Your task to perform on an android device: toggle priority inbox in the gmail app Image 0: 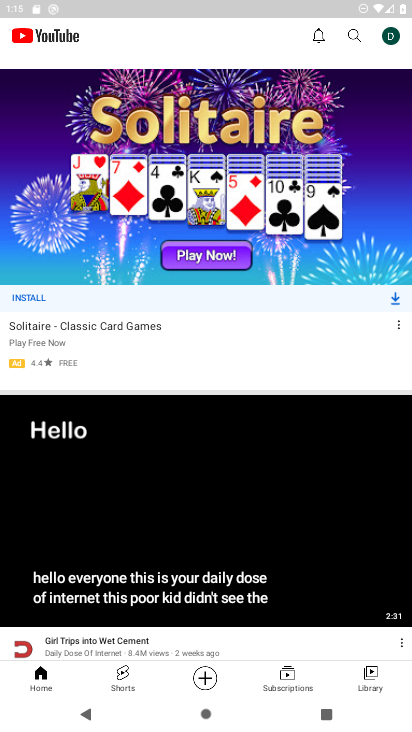
Step 0: press home button
Your task to perform on an android device: toggle priority inbox in the gmail app Image 1: 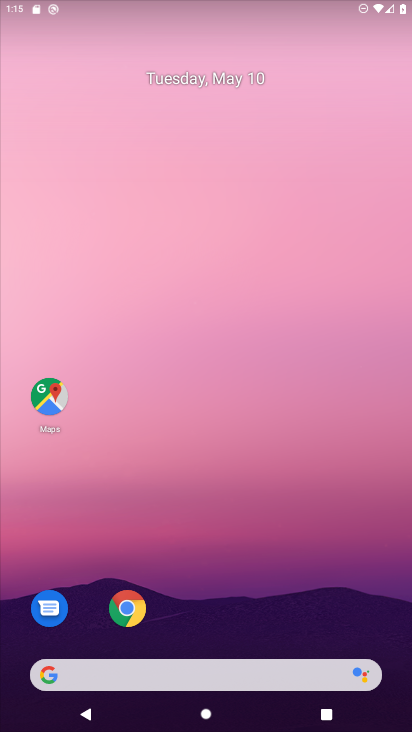
Step 1: drag from (319, 541) to (318, 263)
Your task to perform on an android device: toggle priority inbox in the gmail app Image 2: 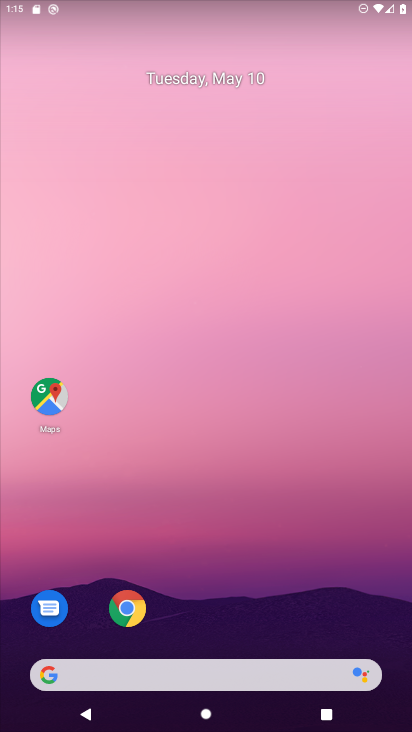
Step 2: drag from (225, 564) to (234, 272)
Your task to perform on an android device: toggle priority inbox in the gmail app Image 3: 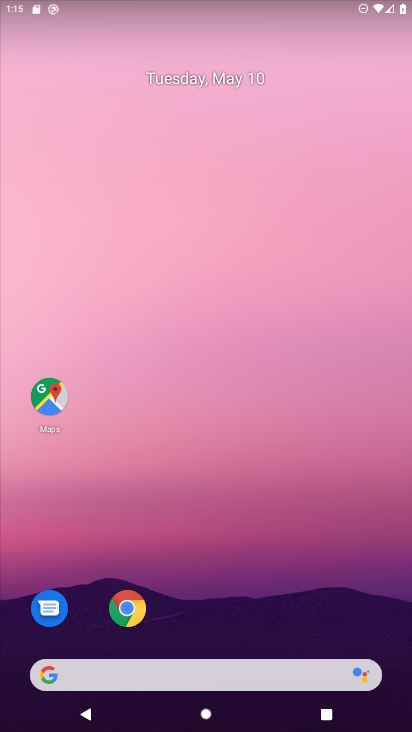
Step 3: drag from (229, 615) to (269, 193)
Your task to perform on an android device: toggle priority inbox in the gmail app Image 4: 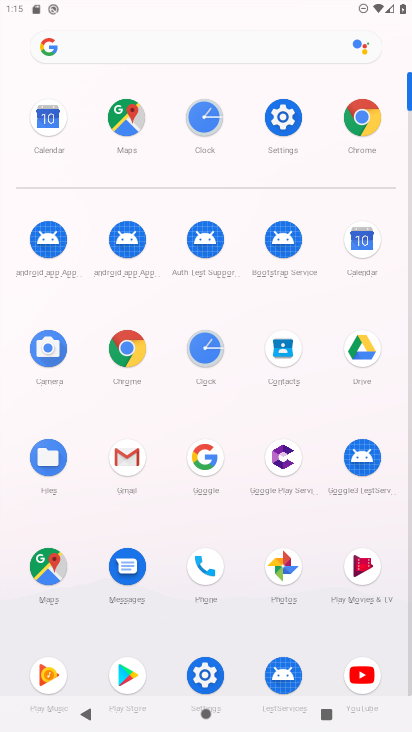
Step 4: drag from (245, 578) to (239, 343)
Your task to perform on an android device: toggle priority inbox in the gmail app Image 5: 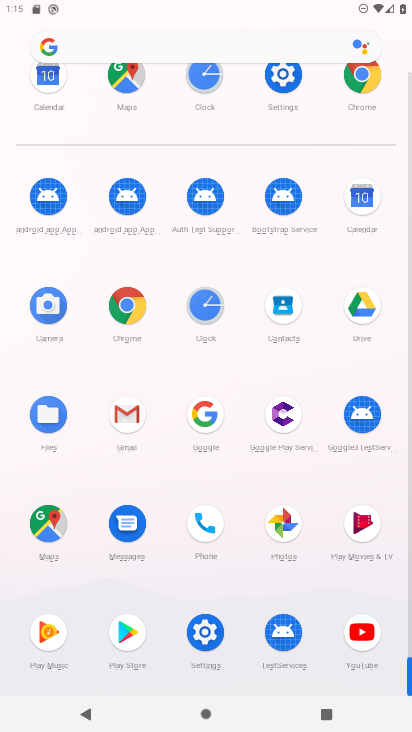
Step 5: drag from (210, 151) to (214, 476)
Your task to perform on an android device: toggle priority inbox in the gmail app Image 6: 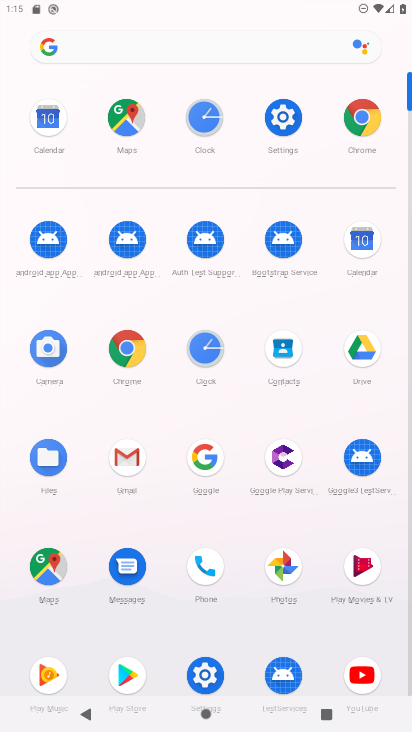
Step 6: click (134, 459)
Your task to perform on an android device: toggle priority inbox in the gmail app Image 7: 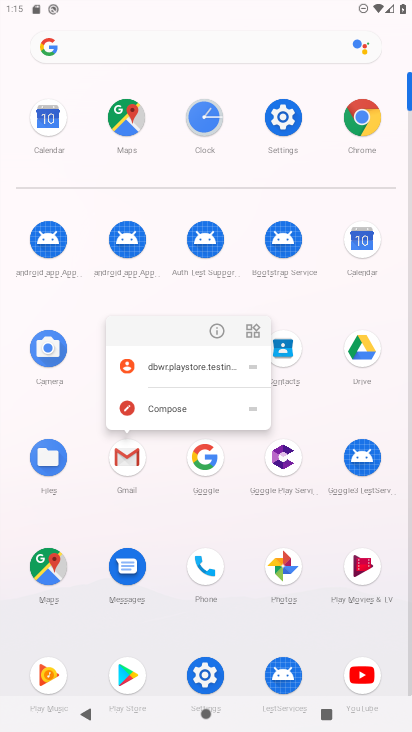
Step 7: click (128, 472)
Your task to perform on an android device: toggle priority inbox in the gmail app Image 8: 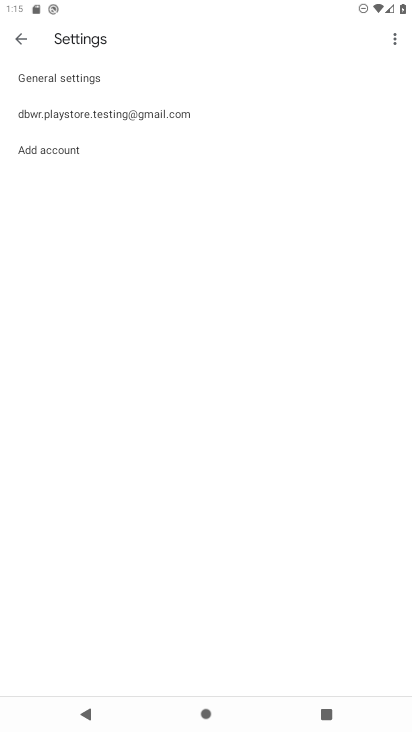
Step 8: click (140, 120)
Your task to perform on an android device: toggle priority inbox in the gmail app Image 9: 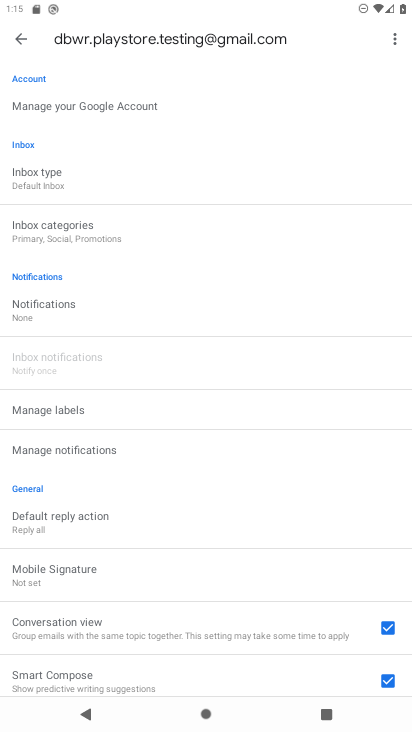
Step 9: click (40, 179)
Your task to perform on an android device: toggle priority inbox in the gmail app Image 10: 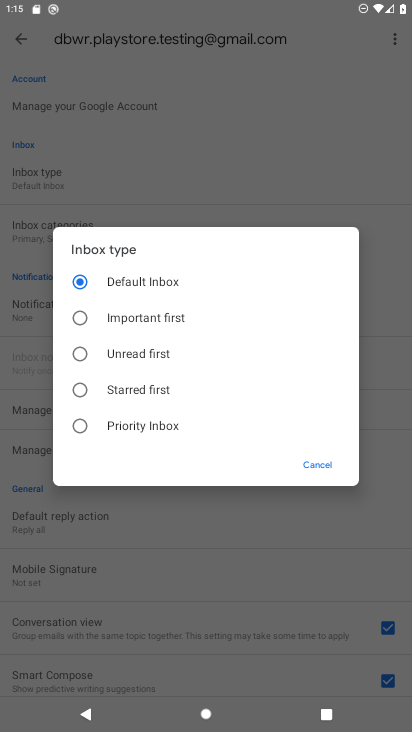
Step 10: click (78, 429)
Your task to perform on an android device: toggle priority inbox in the gmail app Image 11: 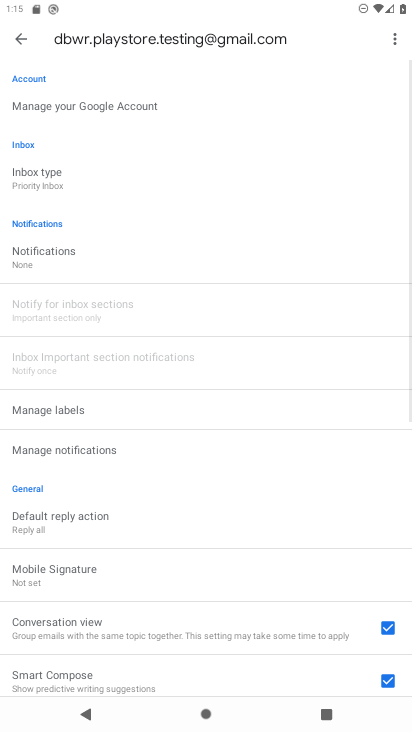
Step 11: task complete